Your task to perform on an android device: set an alarm Image 0: 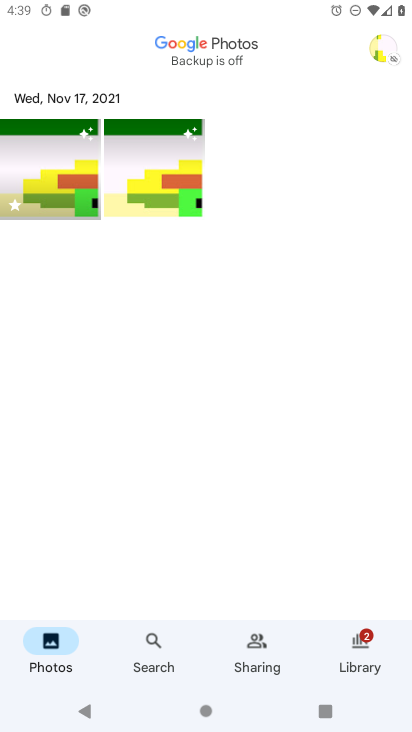
Step 0: press home button
Your task to perform on an android device: set an alarm Image 1: 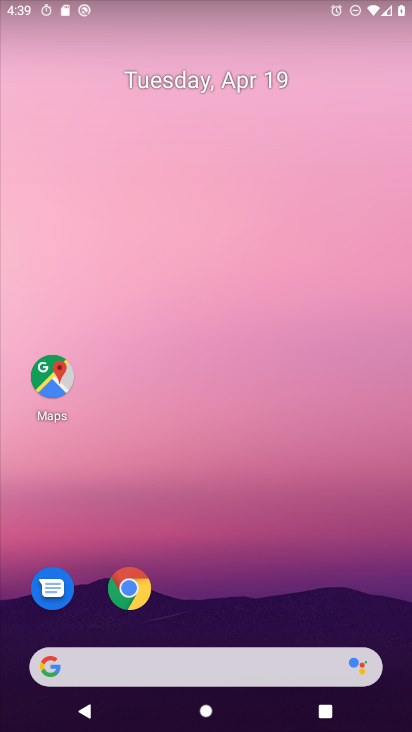
Step 1: drag from (240, 478) to (221, 116)
Your task to perform on an android device: set an alarm Image 2: 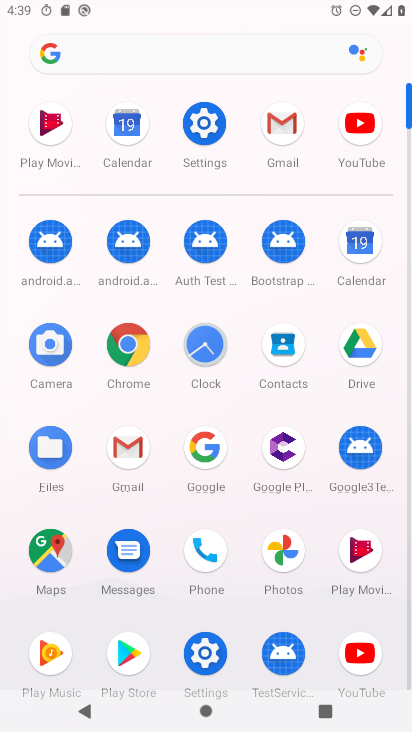
Step 2: click (207, 348)
Your task to perform on an android device: set an alarm Image 3: 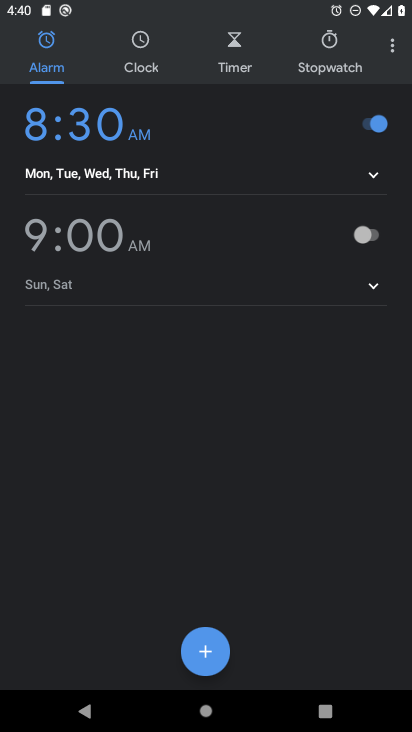
Step 3: click (358, 241)
Your task to perform on an android device: set an alarm Image 4: 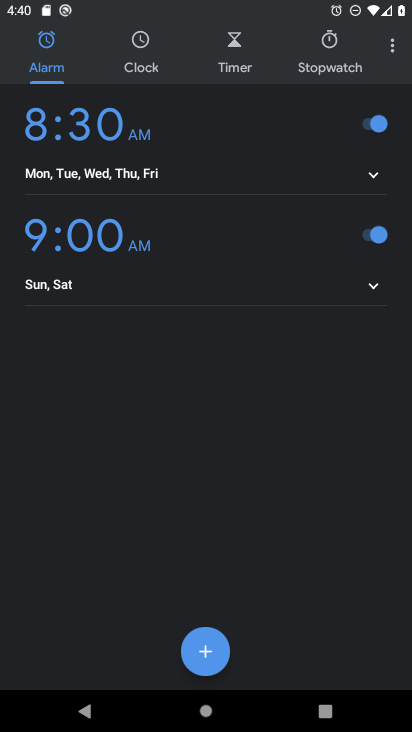
Step 4: task complete